Your task to perform on an android device: Open Google Maps Image 0: 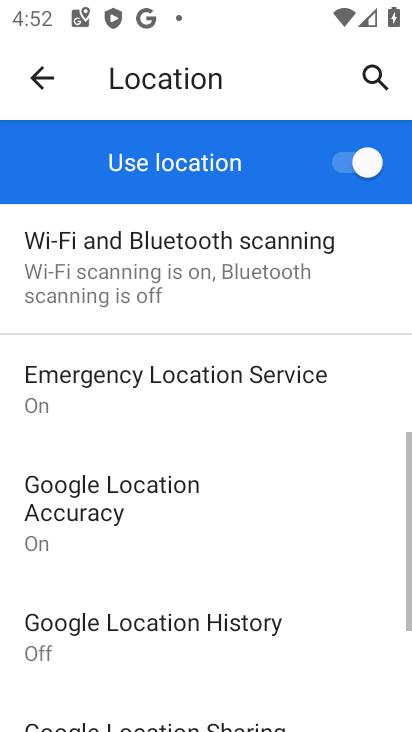
Step 0: press back button
Your task to perform on an android device: Open Google Maps Image 1: 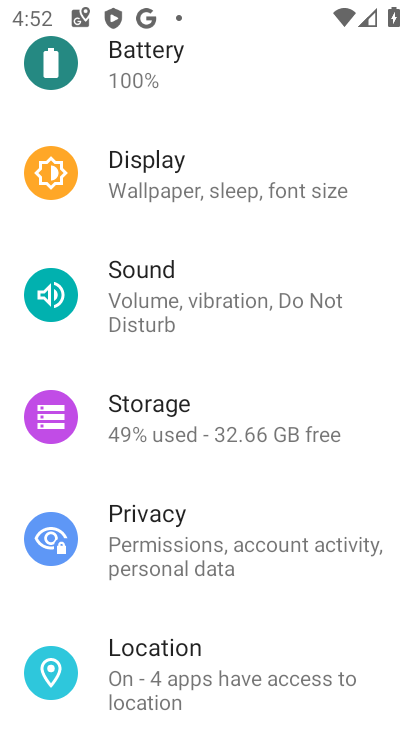
Step 1: press back button
Your task to perform on an android device: Open Google Maps Image 2: 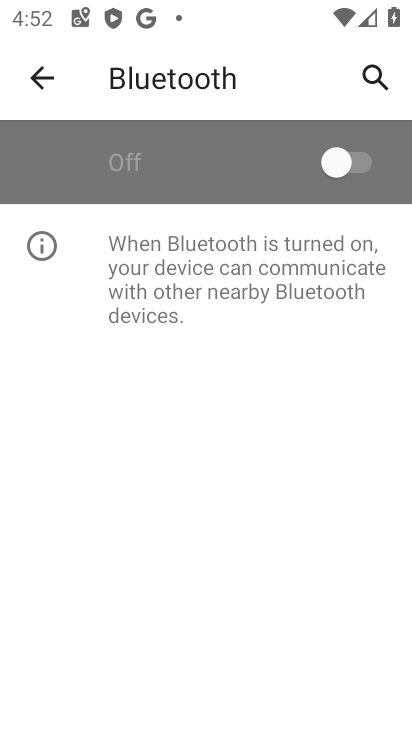
Step 2: press back button
Your task to perform on an android device: Open Google Maps Image 3: 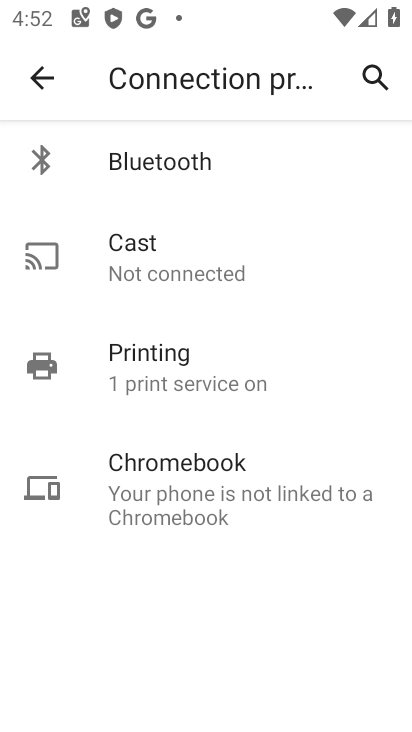
Step 3: press back button
Your task to perform on an android device: Open Google Maps Image 4: 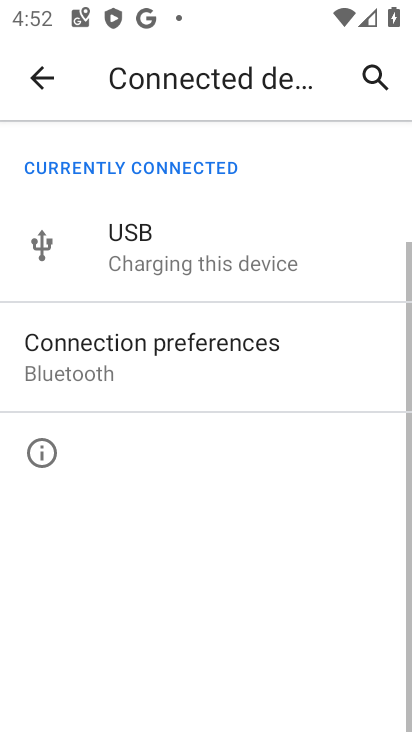
Step 4: press back button
Your task to perform on an android device: Open Google Maps Image 5: 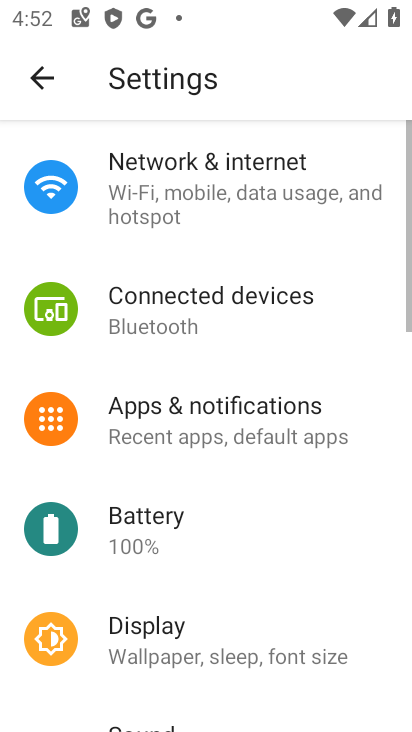
Step 5: press back button
Your task to perform on an android device: Open Google Maps Image 6: 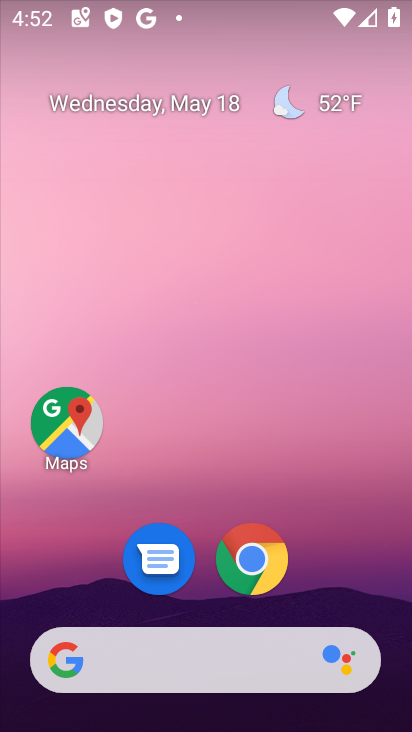
Step 6: click (59, 410)
Your task to perform on an android device: Open Google Maps Image 7: 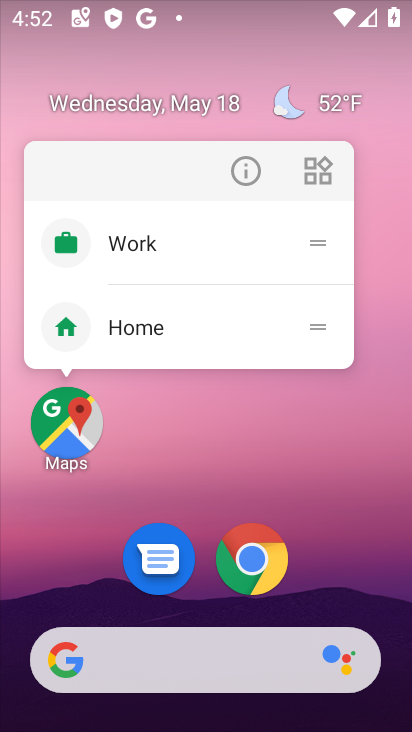
Step 7: click (75, 426)
Your task to perform on an android device: Open Google Maps Image 8: 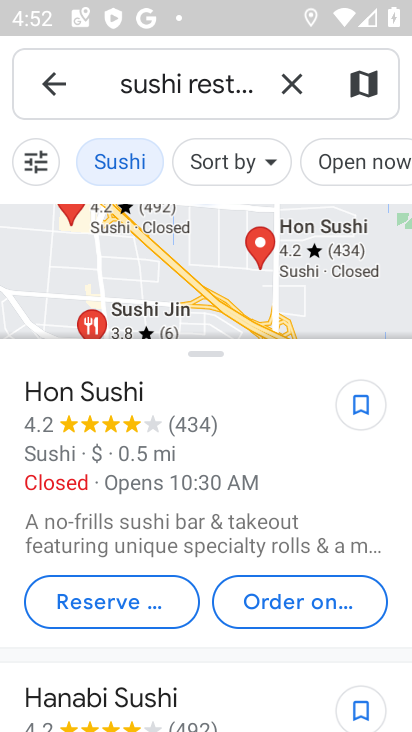
Step 8: task complete